Your task to perform on an android device: turn pop-ups off in chrome Image 0: 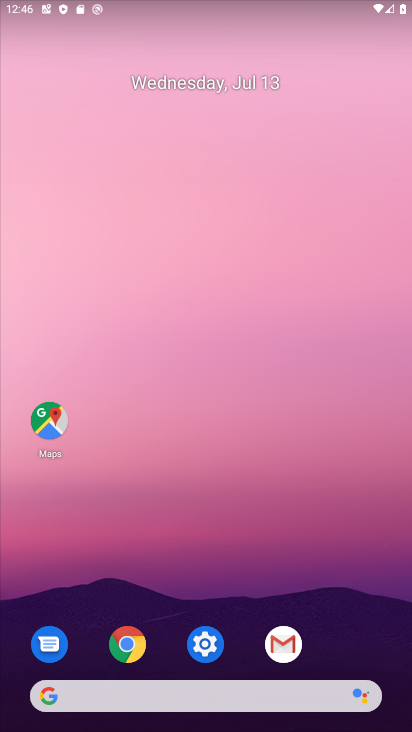
Step 0: click (151, 640)
Your task to perform on an android device: turn pop-ups off in chrome Image 1: 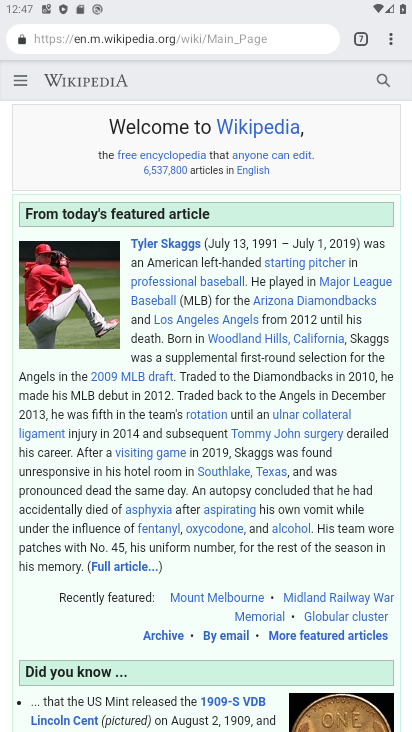
Step 1: click (390, 39)
Your task to perform on an android device: turn pop-ups off in chrome Image 2: 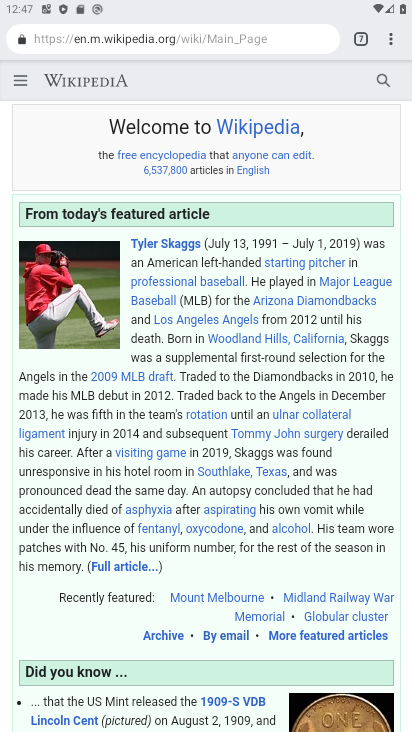
Step 2: click (386, 40)
Your task to perform on an android device: turn pop-ups off in chrome Image 3: 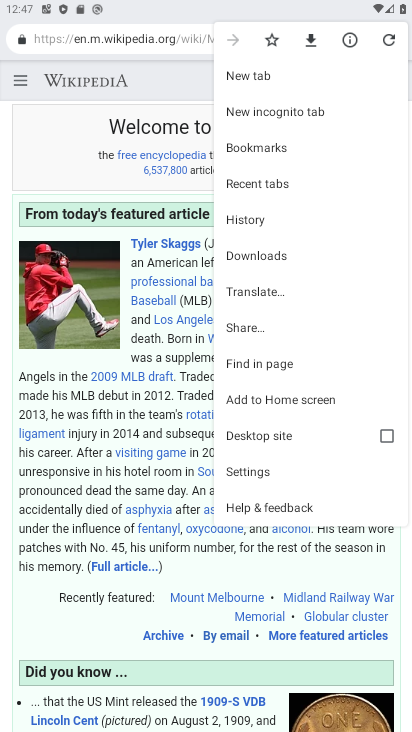
Step 3: click (259, 474)
Your task to perform on an android device: turn pop-ups off in chrome Image 4: 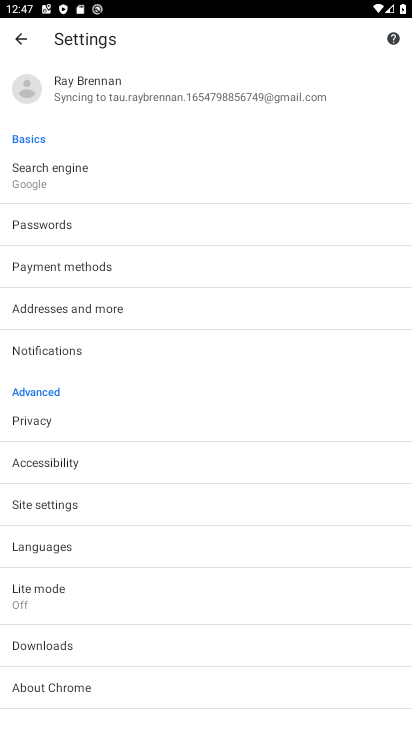
Step 4: click (56, 515)
Your task to perform on an android device: turn pop-ups off in chrome Image 5: 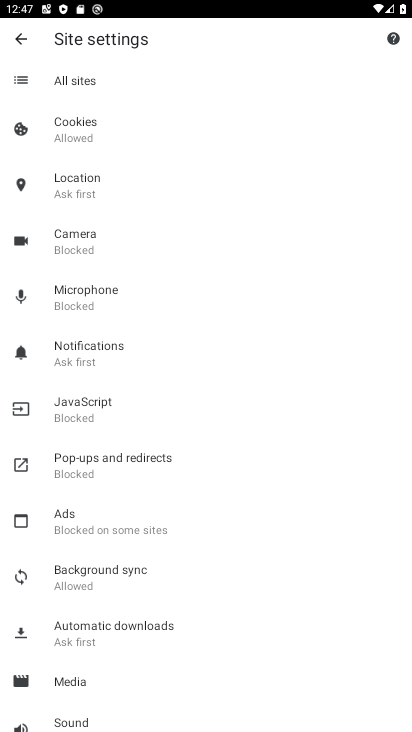
Step 5: click (89, 467)
Your task to perform on an android device: turn pop-ups off in chrome Image 6: 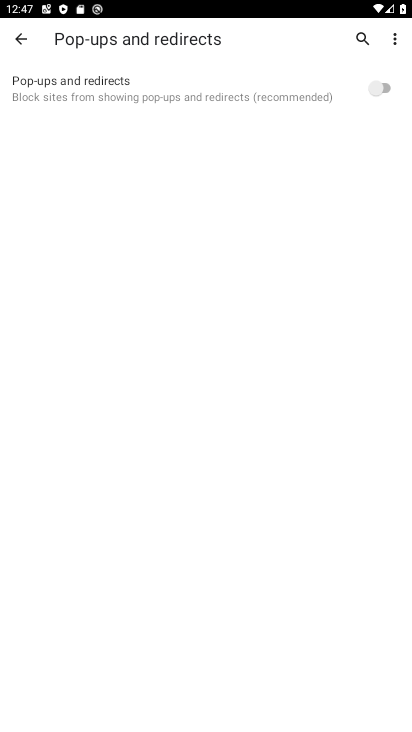
Step 6: click (366, 89)
Your task to perform on an android device: turn pop-ups off in chrome Image 7: 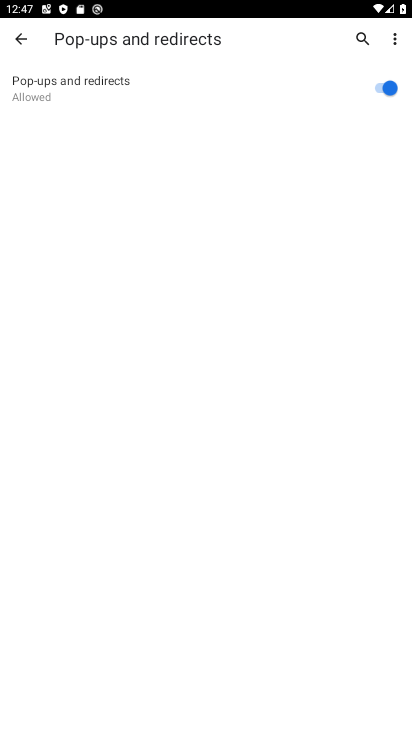
Step 7: click (368, 86)
Your task to perform on an android device: turn pop-ups off in chrome Image 8: 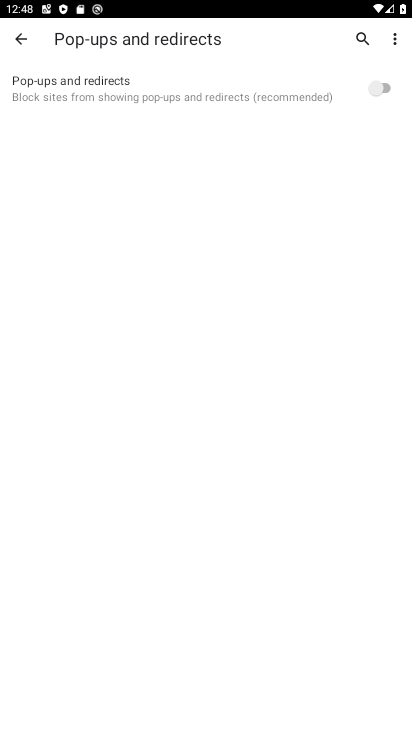
Step 8: task complete